Your task to perform on an android device: manage bookmarks in the chrome app Image 0: 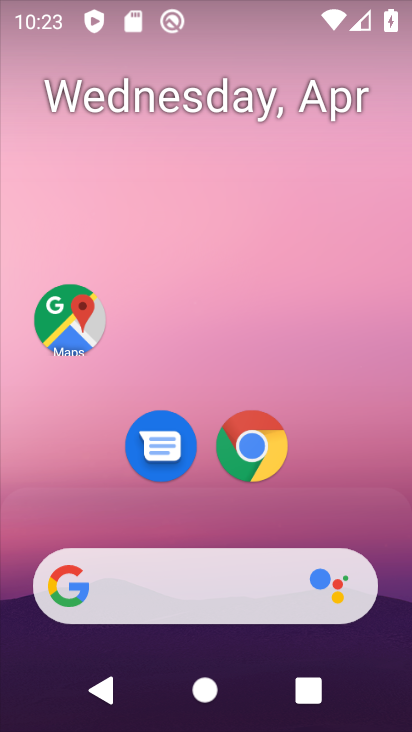
Step 0: click (252, 446)
Your task to perform on an android device: manage bookmarks in the chrome app Image 1: 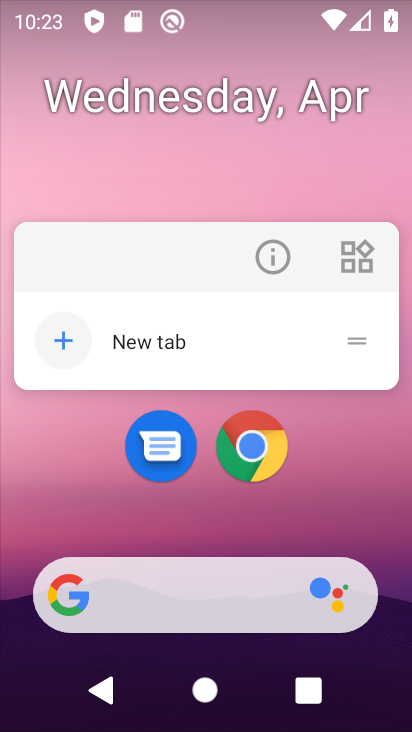
Step 1: click (260, 414)
Your task to perform on an android device: manage bookmarks in the chrome app Image 2: 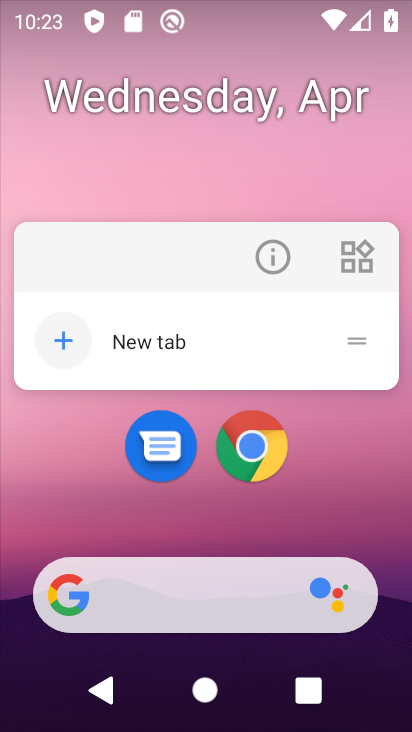
Step 2: click (249, 437)
Your task to perform on an android device: manage bookmarks in the chrome app Image 3: 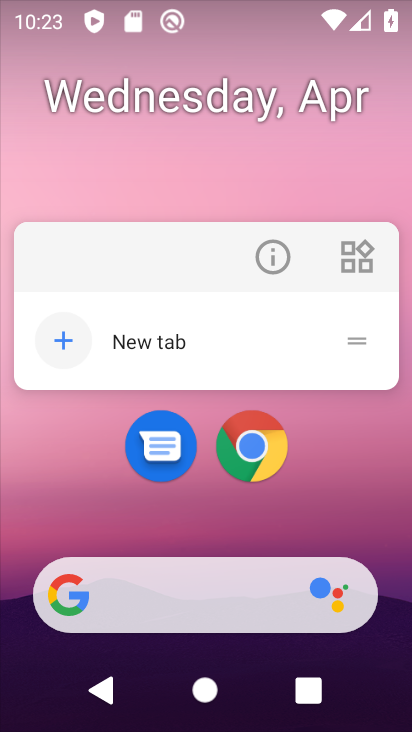
Step 3: click (264, 463)
Your task to perform on an android device: manage bookmarks in the chrome app Image 4: 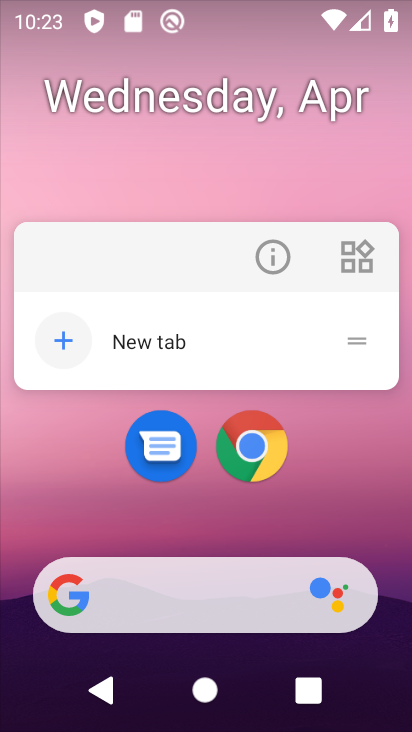
Step 4: click (251, 460)
Your task to perform on an android device: manage bookmarks in the chrome app Image 5: 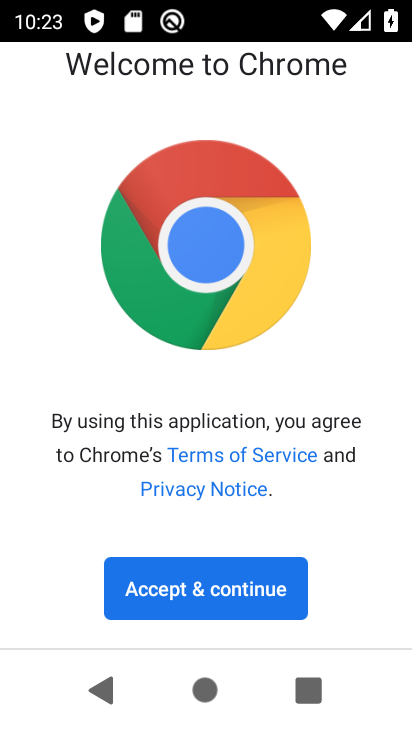
Step 5: click (229, 571)
Your task to perform on an android device: manage bookmarks in the chrome app Image 6: 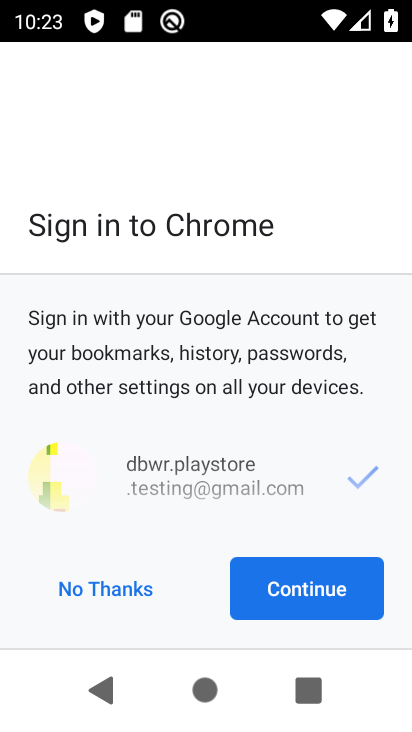
Step 6: click (298, 581)
Your task to perform on an android device: manage bookmarks in the chrome app Image 7: 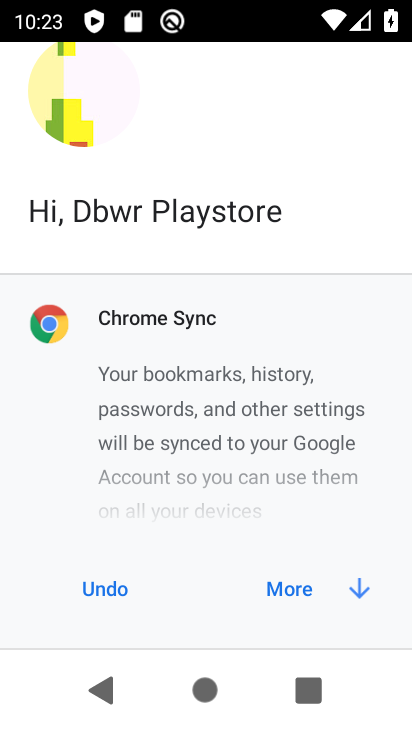
Step 7: click (310, 576)
Your task to perform on an android device: manage bookmarks in the chrome app Image 8: 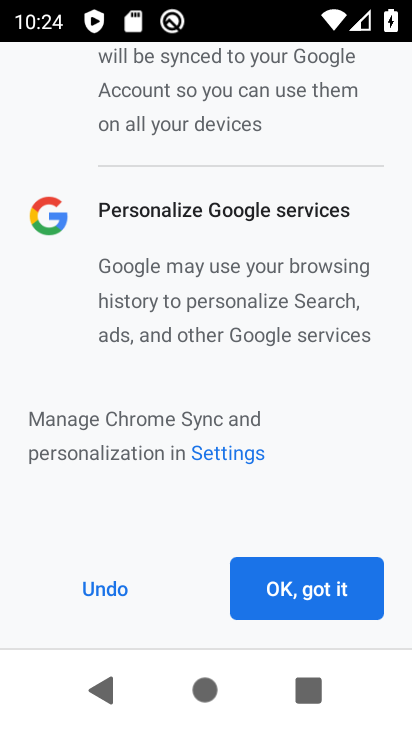
Step 8: click (338, 590)
Your task to perform on an android device: manage bookmarks in the chrome app Image 9: 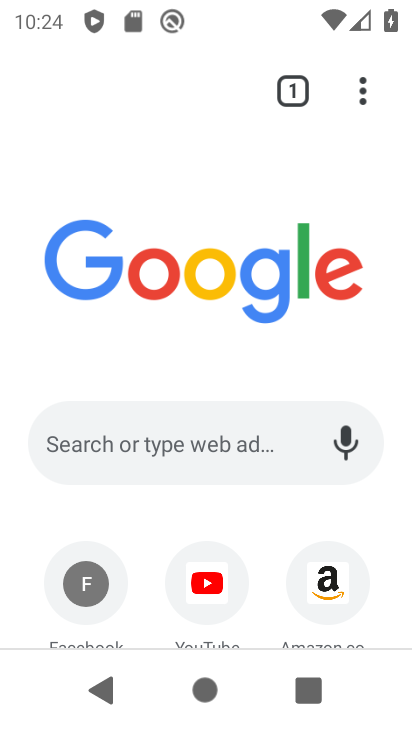
Step 9: task complete